Your task to perform on an android device: Where can I buy a nice beach towel? Image 0: 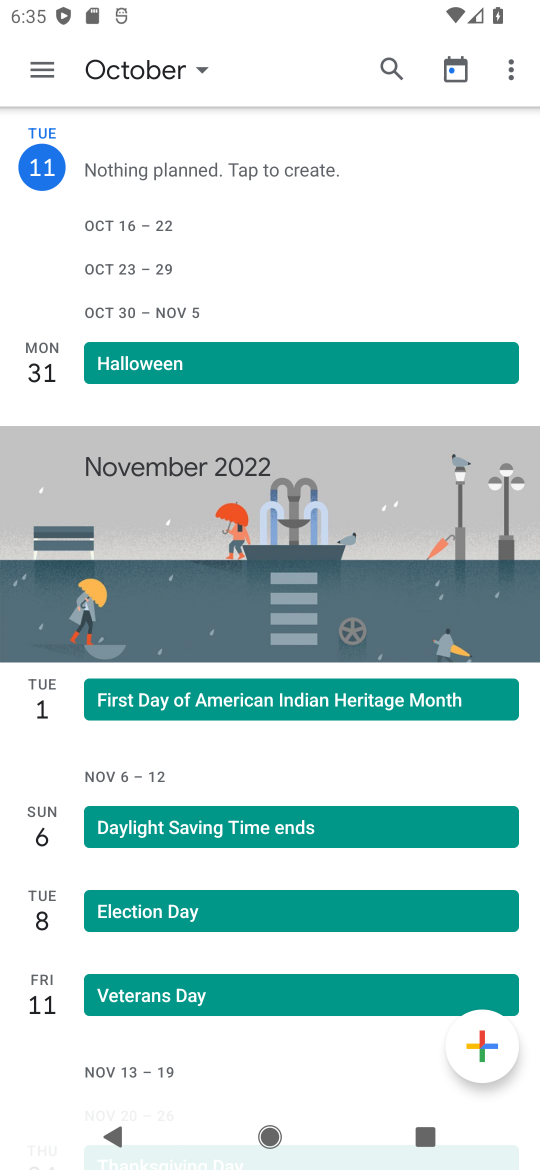
Step 0: press home button
Your task to perform on an android device: Where can I buy a nice beach towel? Image 1: 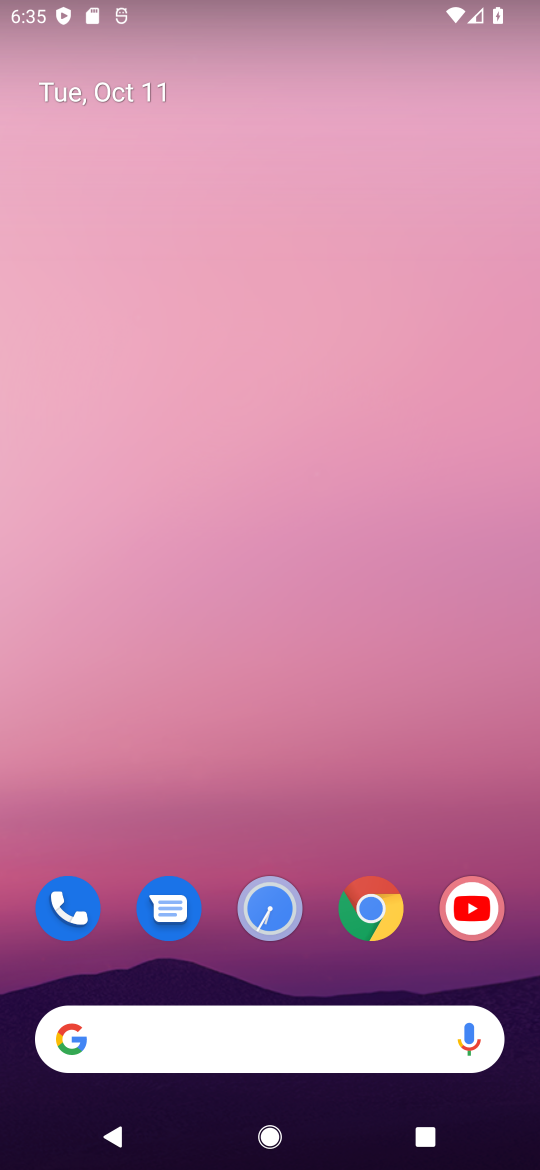
Step 1: click (337, 1049)
Your task to perform on an android device: Where can I buy a nice beach towel? Image 2: 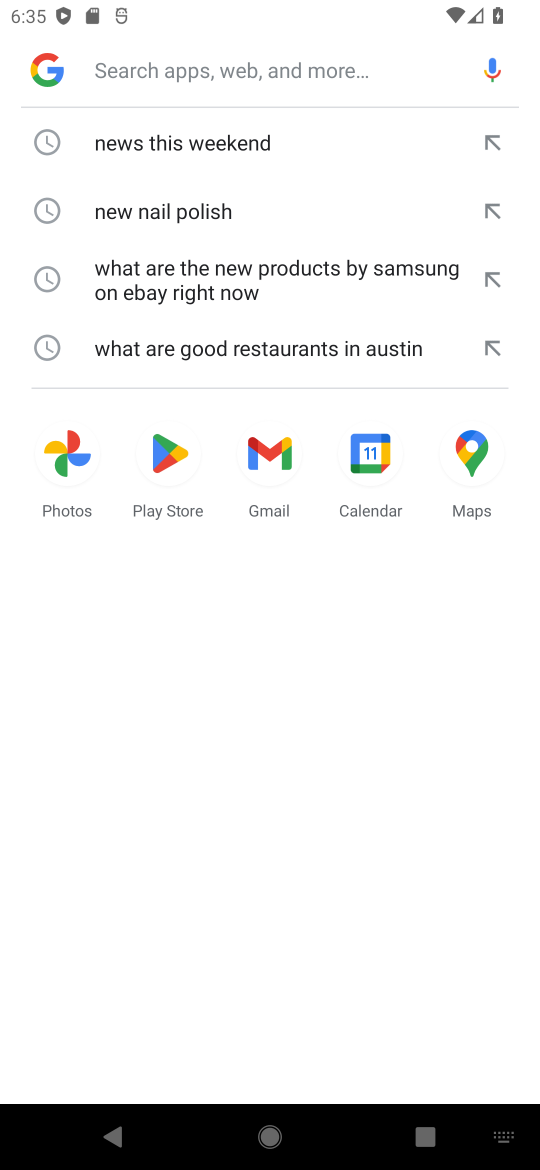
Step 2: type "where can I buy a nice beach towel"
Your task to perform on an android device: Where can I buy a nice beach towel? Image 3: 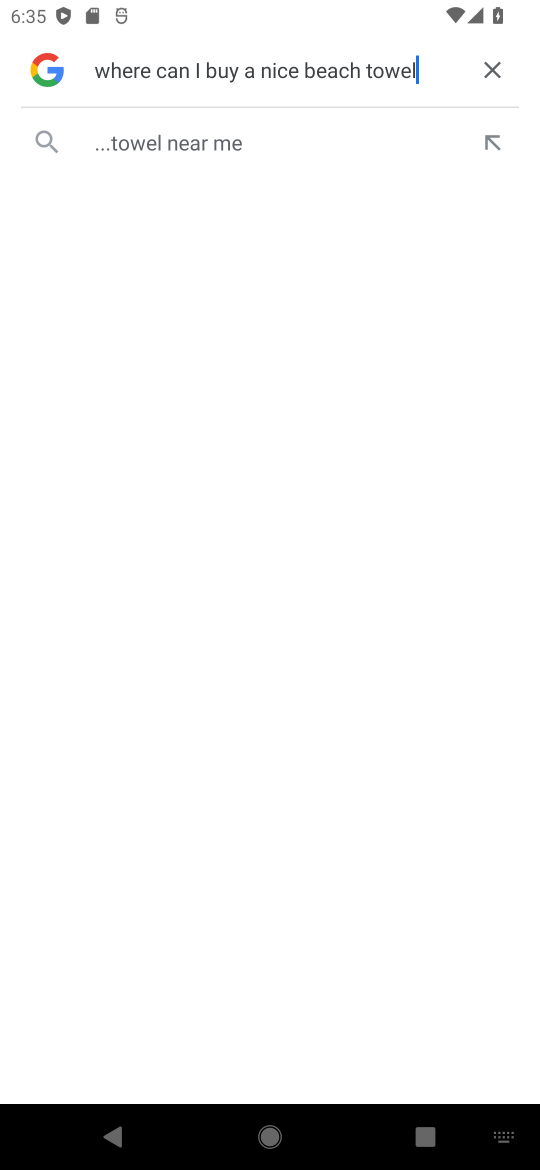
Step 3: click (119, 134)
Your task to perform on an android device: Where can I buy a nice beach towel? Image 4: 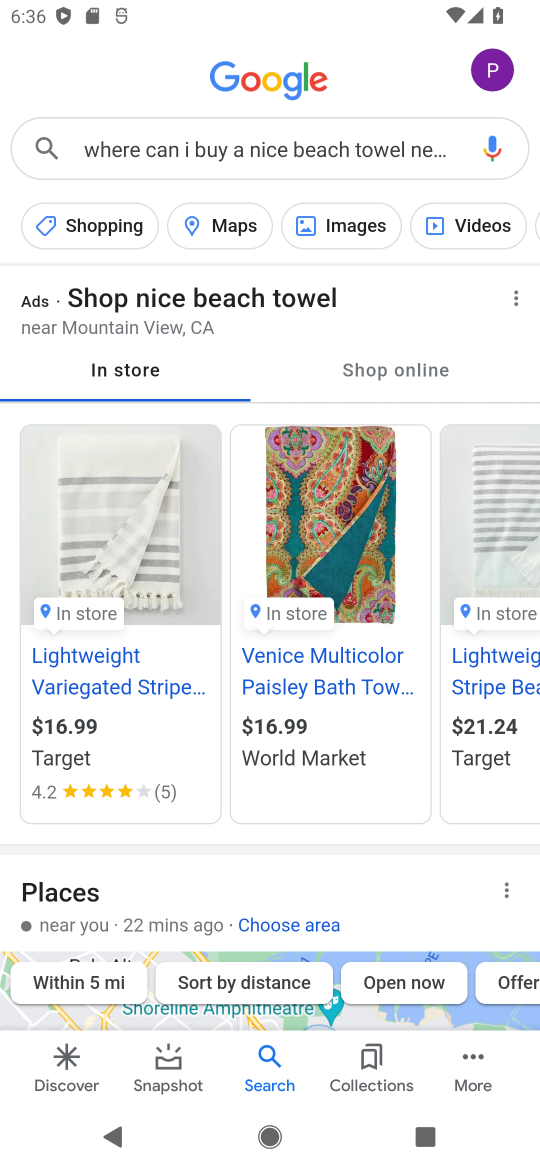
Step 4: task complete